Your task to perform on an android device: Go to sound settings Image 0: 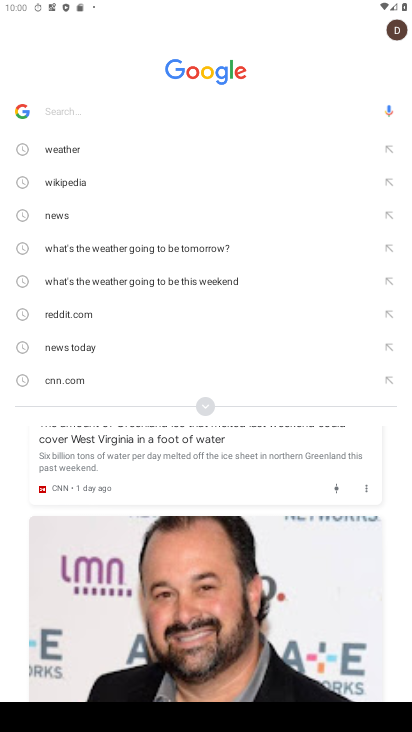
Step 0: press home button
Your task to perform on an android device: Go to sound settings Image 1: 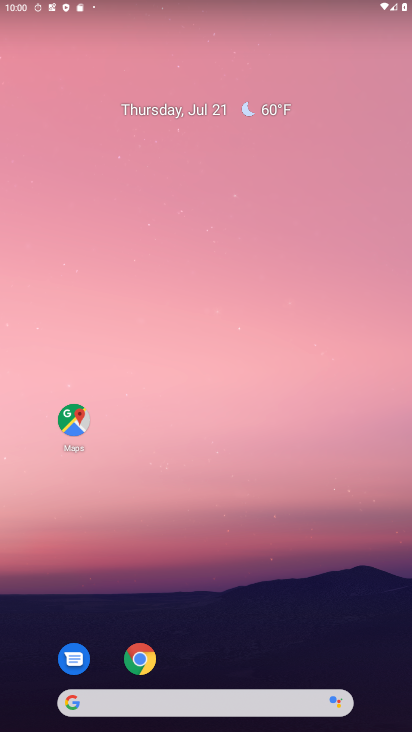
Step 1: drag from (173, 694) to (232, 219)
Your task to perform on an android device: Go to sound settings Image 2: 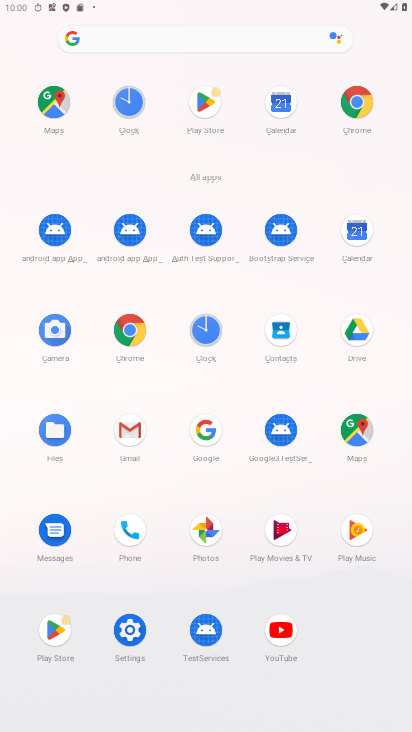
Step 2: click (138, 622)
Your task to perform on an android device: Go to sound settings Image 3: 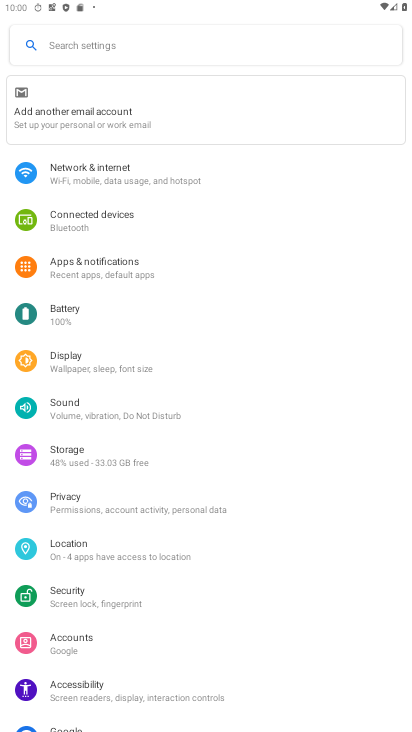
Step 3: click (58, 411)
Your task to perform on an android device: Go to sound settings Image 4: 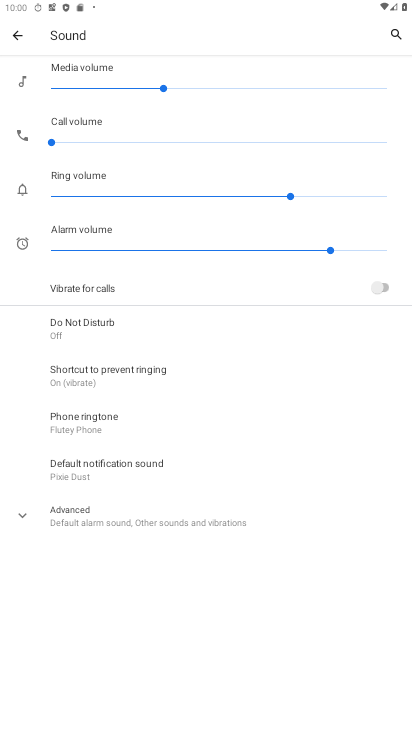
Step 4: click (58, 514)
Your task to perform on an android device: Go to sound settings Image 5: 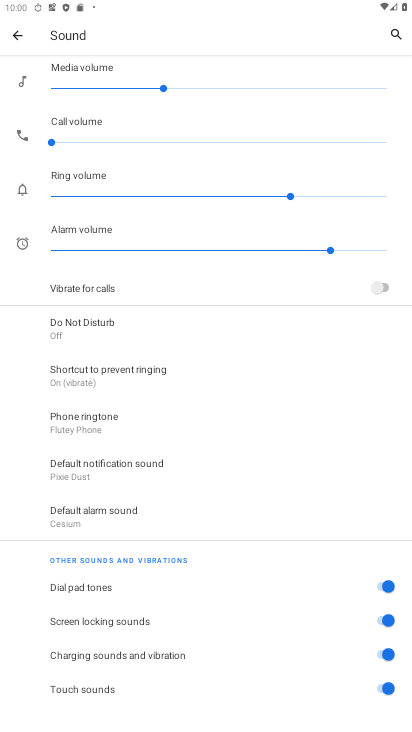
Step 5: task complete